Your task to perform on an android device: Go to Reddit.com Image 0: 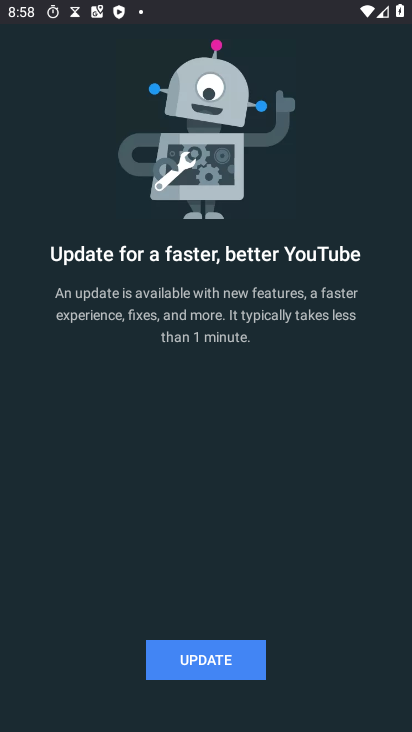
Step 0: press home button
Your task to perform on an android device: Go to Reddit.com Image 1: 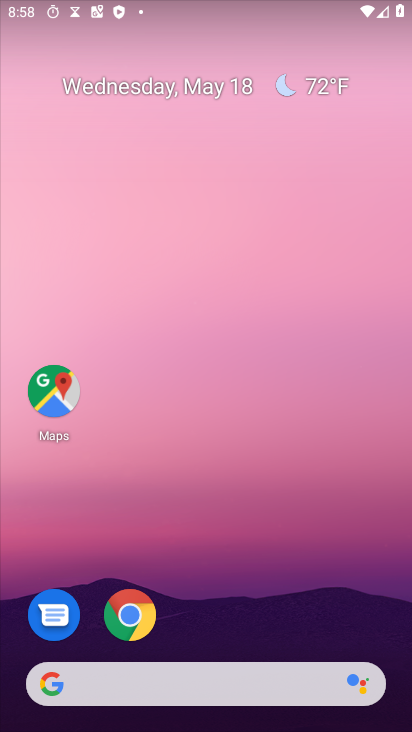
Step 1: click (132, 613)
Your task to perform on an android device: Go to Reddit.com Image 2: 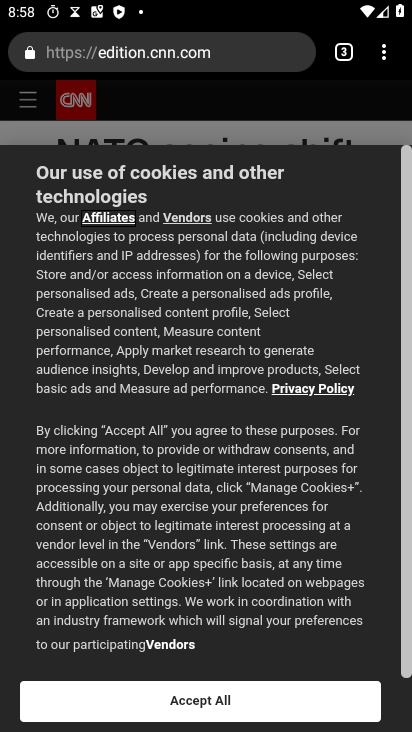
Step 2: click (351, 58)
Your task to perform on an android device: Go to Reddit.com Image 3: 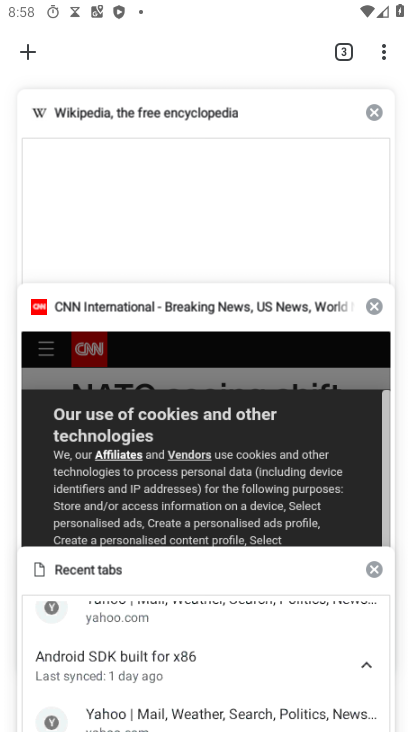
Step 3: click (32, 58)
Your task to perform on an android device: Go to Reddit.com Image 4: 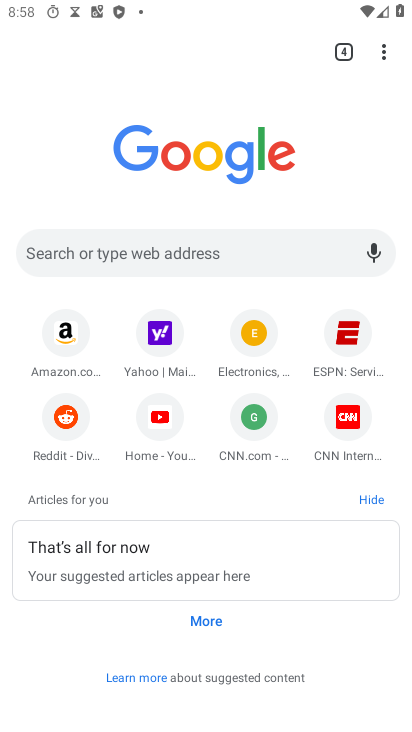
Step 4: click (65, 428)
Your task to perform on an android device: Go to Reddit.com Image 5: 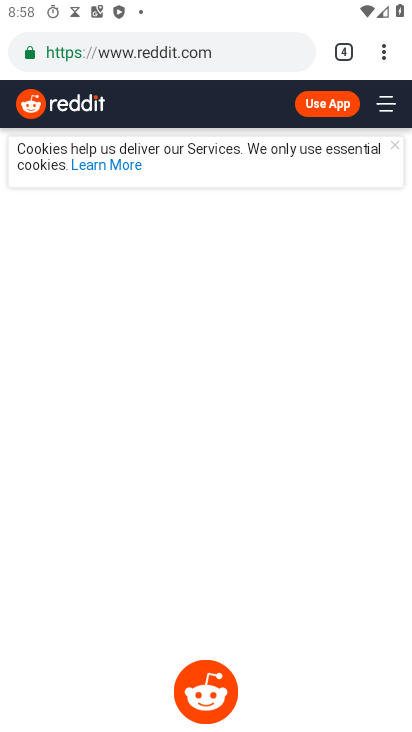
Step 5: task complete